Your task to perform on an android device: open sync settings in chrome Image 0: 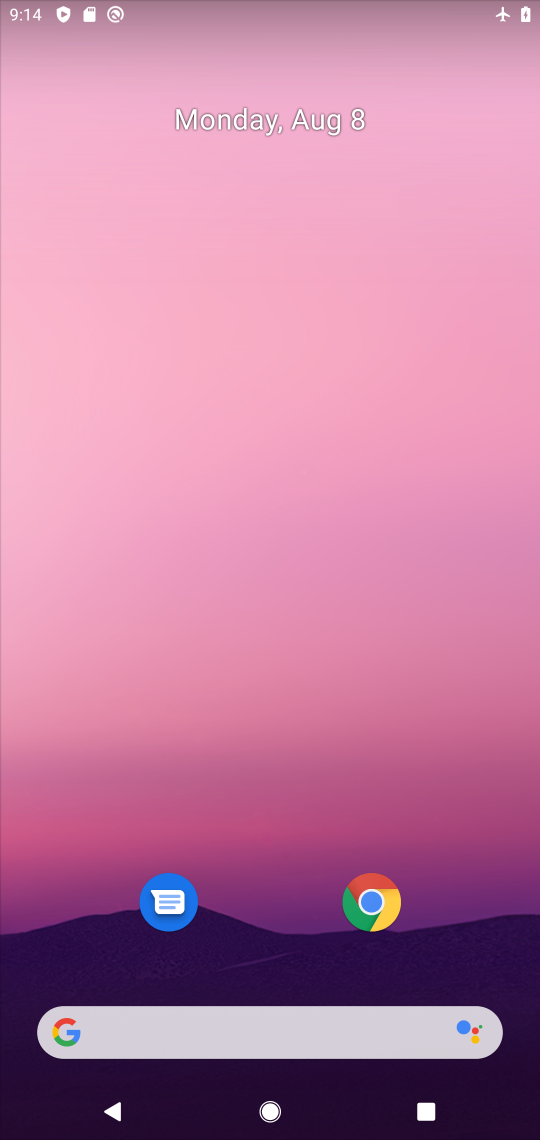
Step 0: click (364, 905)
Your task to perform on an android device: open sync settings in chrome Image 1: 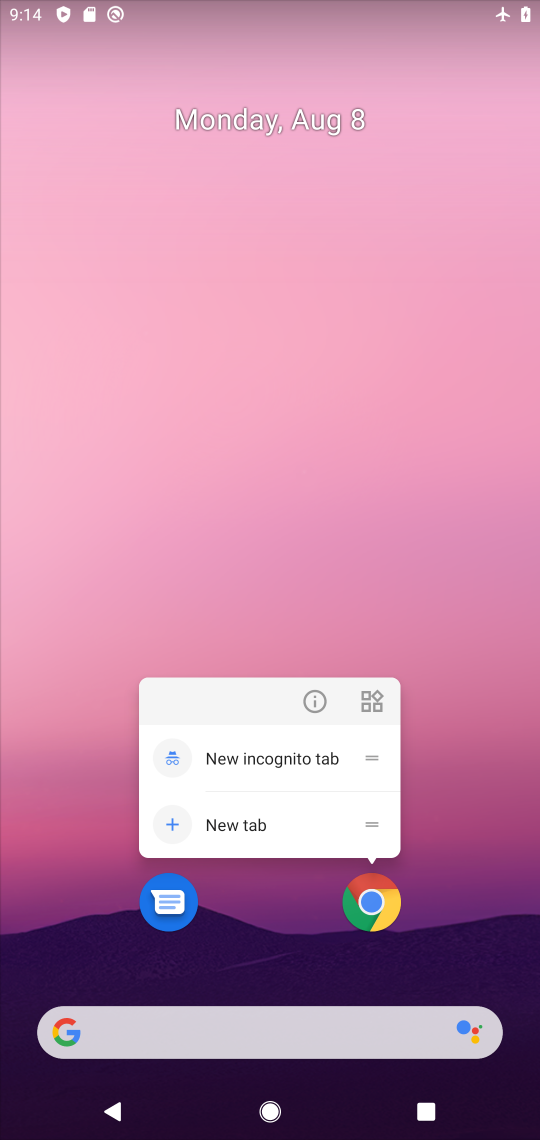
Step 1: click (364, 905)
Your task to perform on an android device: open sync settings in chrome Image 2: 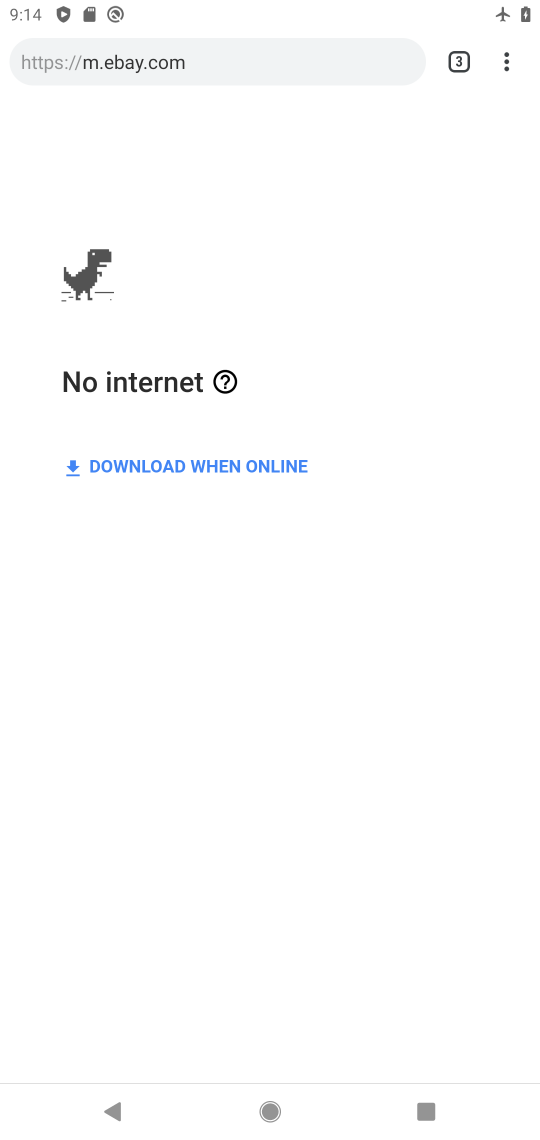
Step 2: click (511, 61)
Your task to perform on an android device: open sync settings in chrome Image 3: 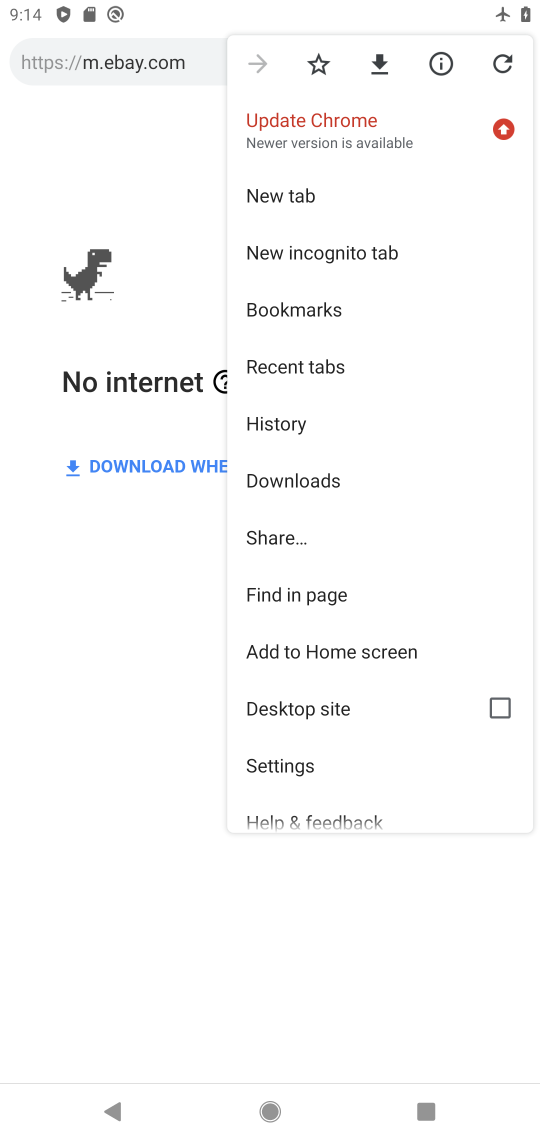
Step 3: click (275, 771)
Your task to perform on an android device: open sync settings in chrome Image 4: 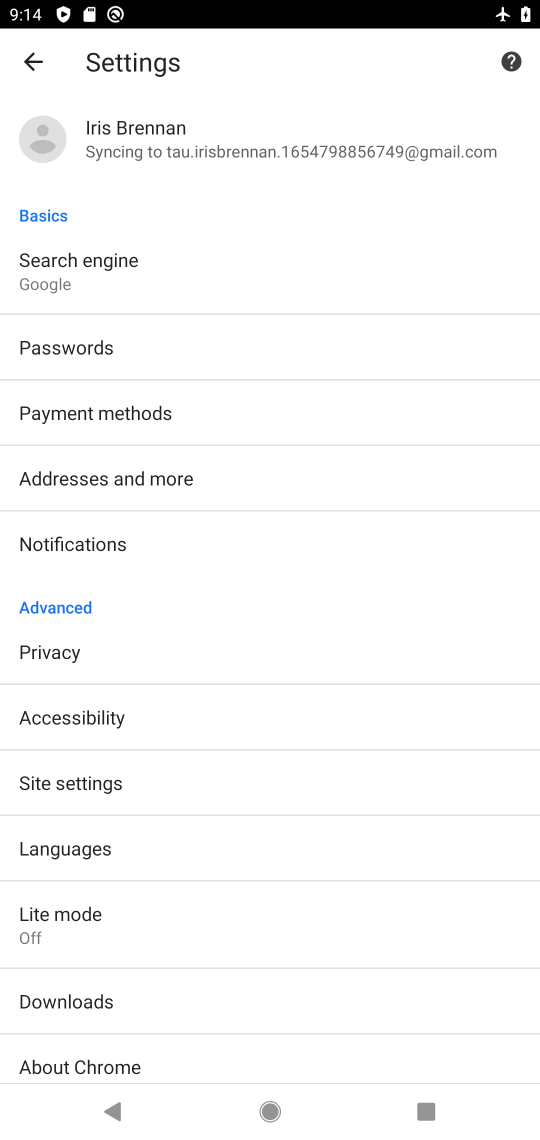
Step 4: click (176, 133)
Your task to perform on an android device: open sync settings in chrome Image 5: 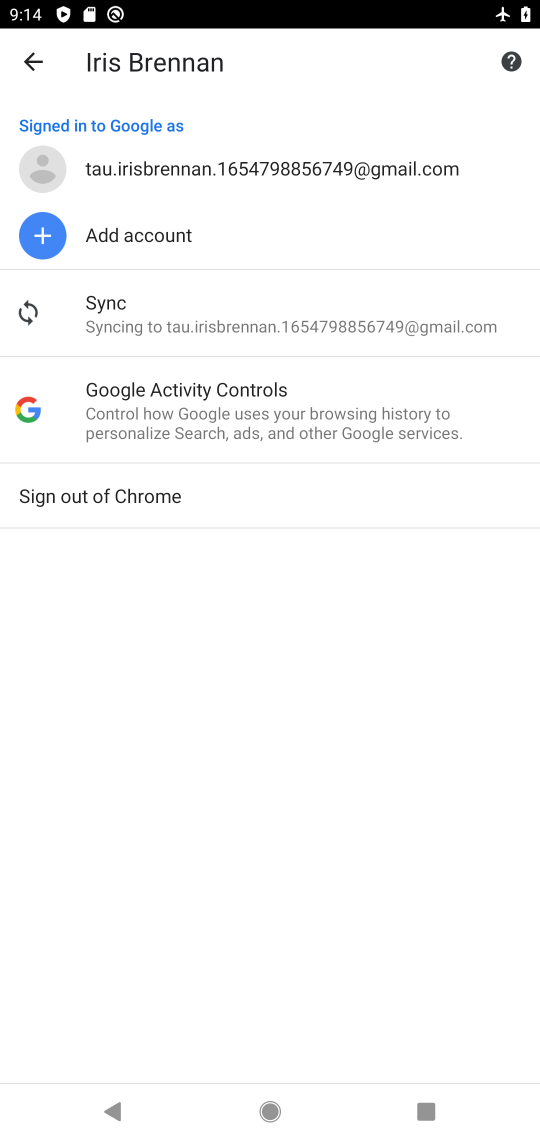
Step 5: click (88, 299)
Your task to perform on an android device: open sync settings in chrome Image 6: 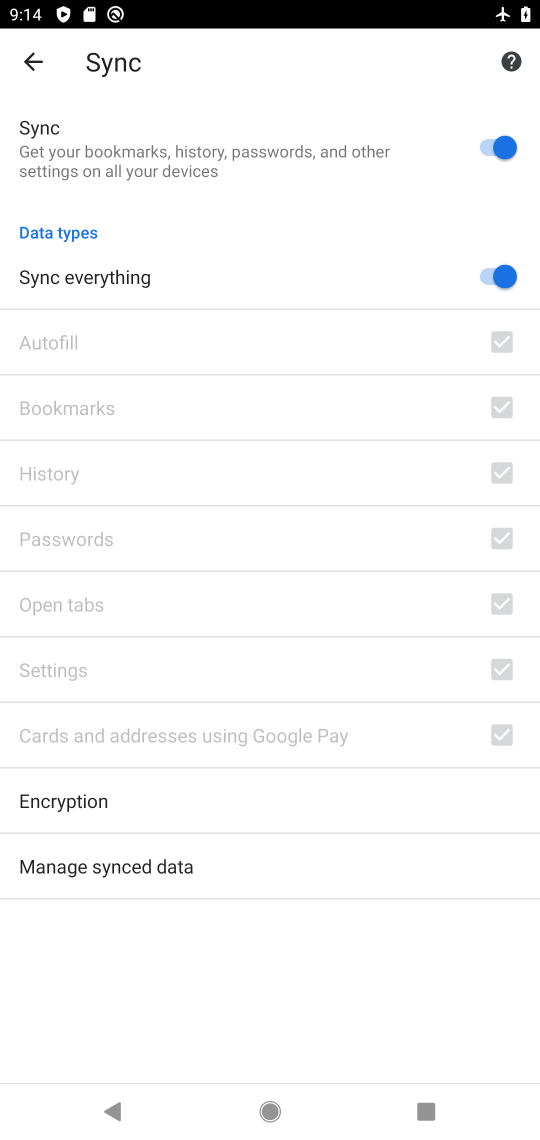
Step 6: task complete